Your task to perform on an android device: uninstall "Google Docs" Image 0: 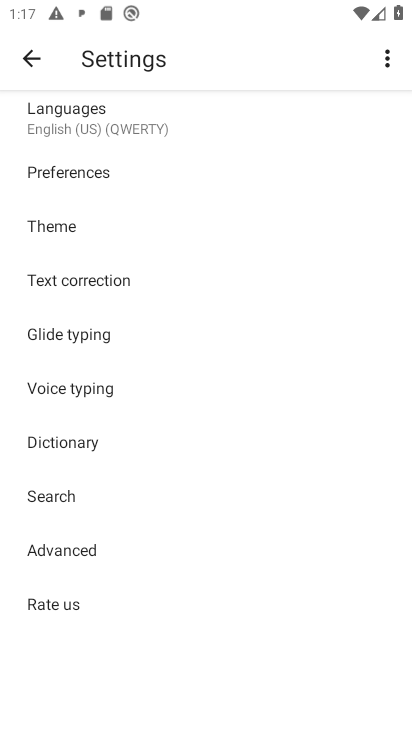
Step 0: press home button
Your task to perform on an android device: uninstall "Google Docs" Image 1: 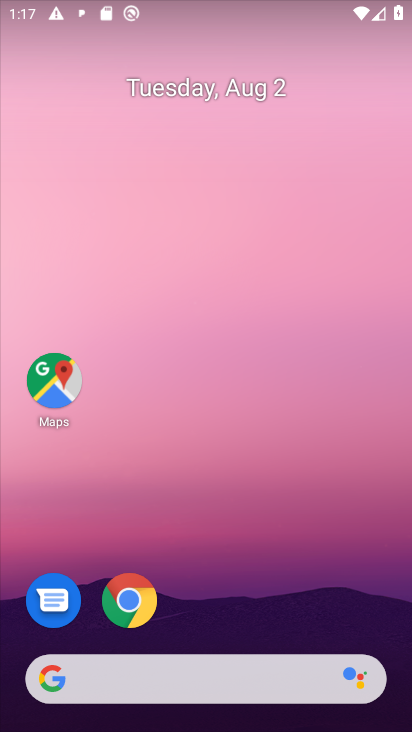
Step 1: drag from (190, 651) to (209, 69)
Your task to perform on an android device: uninstall "Google Docs" Image 2: 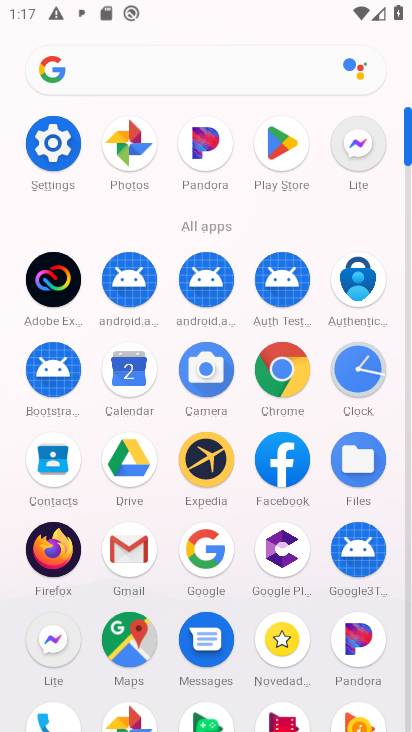
Step 2: click (289, 139)
Your task to perform on an android device: uninstall "Google Docs" Image 3: 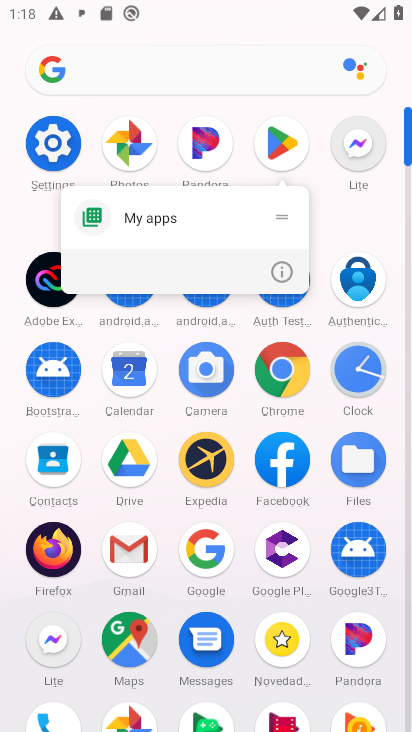
Step 3: click (274, 137)
Your task to perform on an android device: uninstall "Google Docs" Image 4: 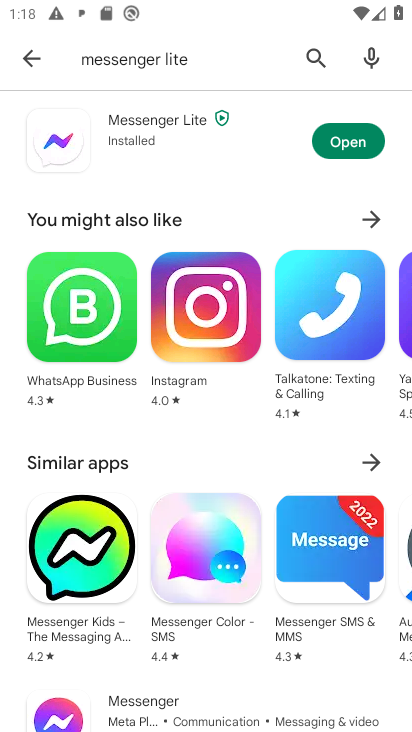
Step 4: click (29, 65)
Your task to perform on an android device: uninstall "Google Docs" Image 5: 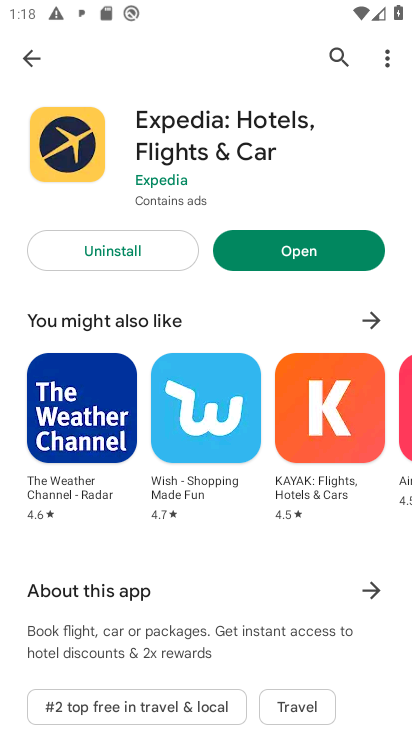
Step 5: click (342, 56)
Your task to perform on an android device: uninstall "Google Docs" Image 6: 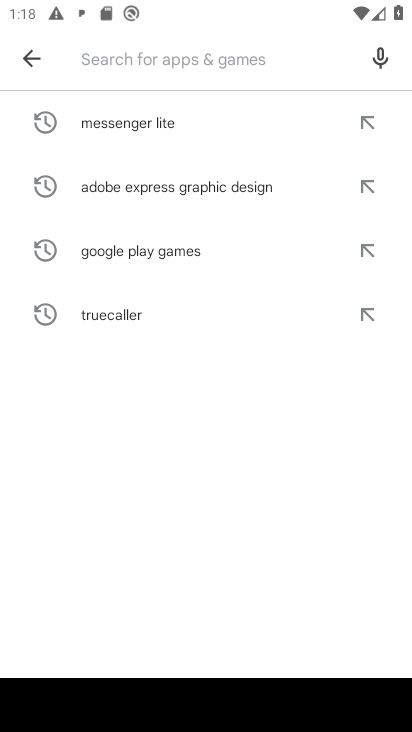
Step 6: type "Google Docs"
Your task to perform on an android device: uninstall "Google Docs" Image 7: 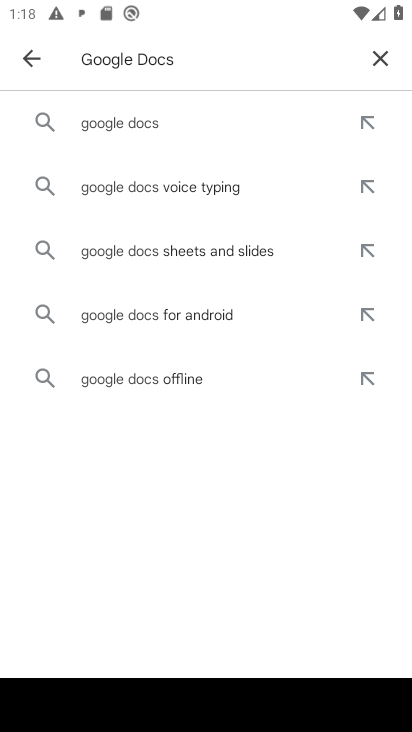
Step 7: click (106, 121)
Your task to perform on an android device: uninstall "Google Docs" Image 8: 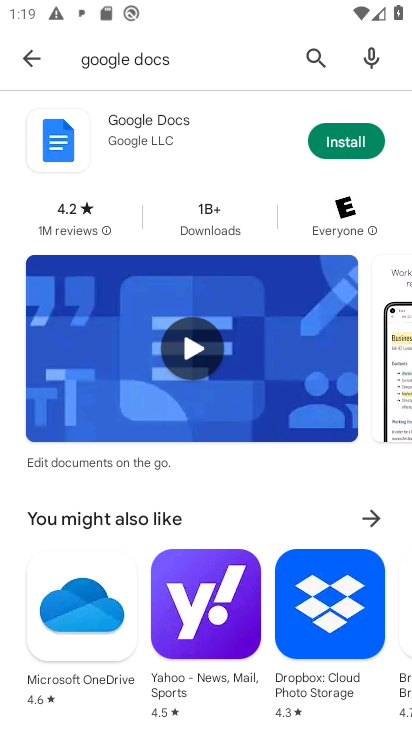
Step 8: task complete